Your task to perform on an android device: Go to Amazon Image 0: 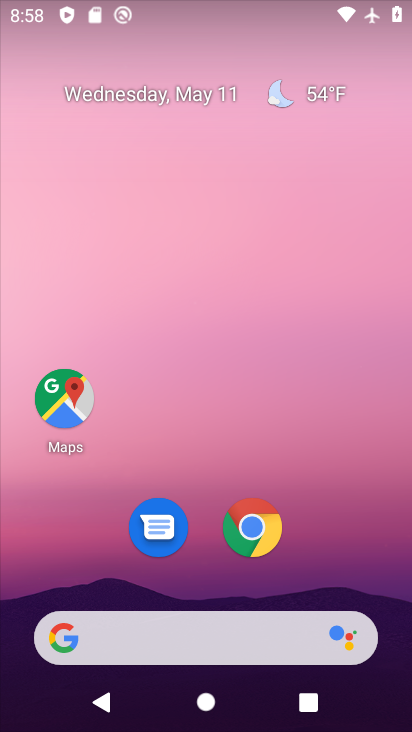
Step 0: click (264, 534)
Your task to perform on an android device: Go to Amazon Image 1: 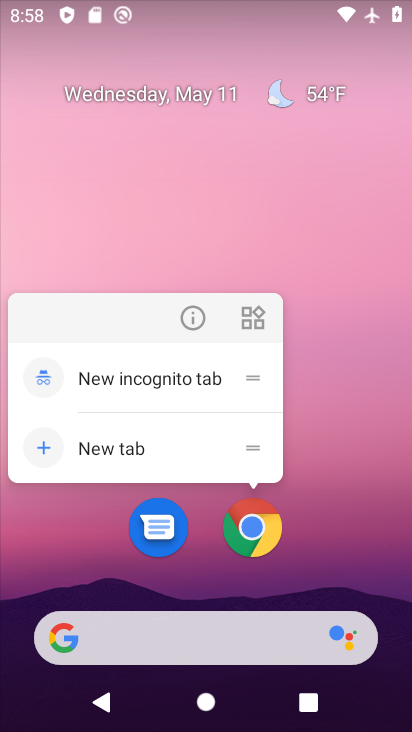
Step 1: click (257, 539)
Your task to perform on an android device: Go to Amazon Image 2: 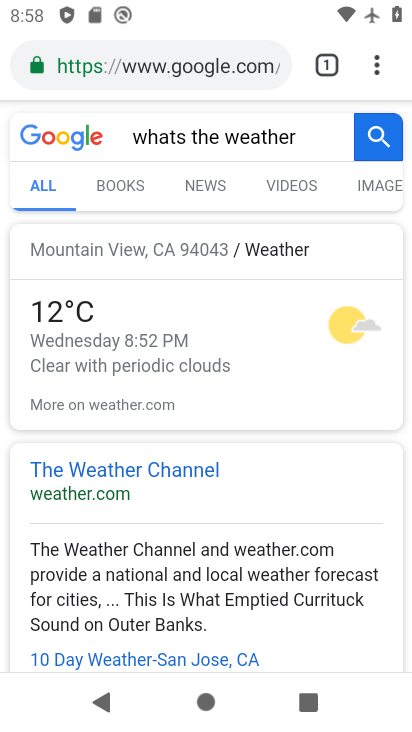
Step 2: click (175, 70)
Your task to perform on an android device: Go to Amazon Image 3: 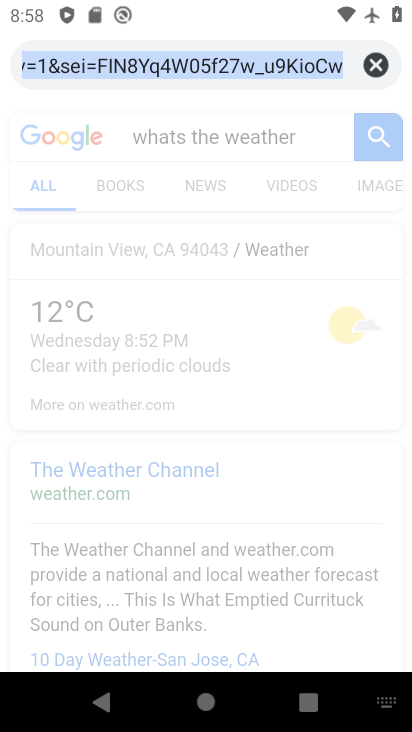
Step 3: type "amazon"
Your task to perform on an android device: Go to Amazon Image 4: 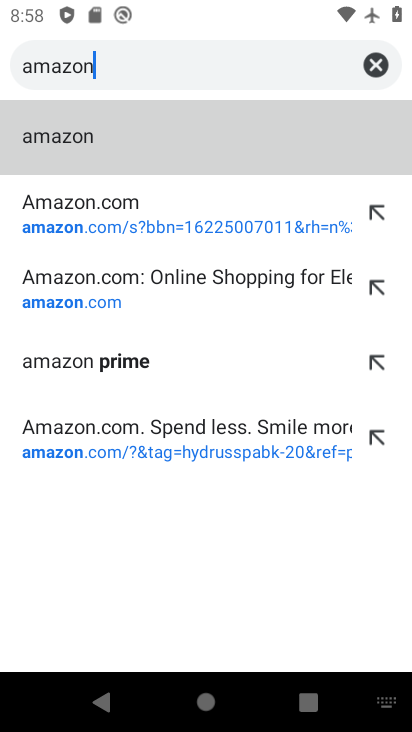
Step 4: click (83, 212)
Your task to perform on an android device: Go to Amazon Image 5: 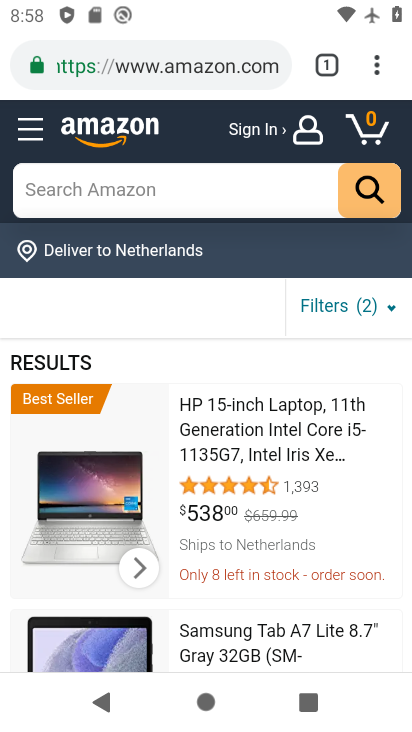
Step 5: task complete